Your task to perform on an android device: Show me recent news Image 0: 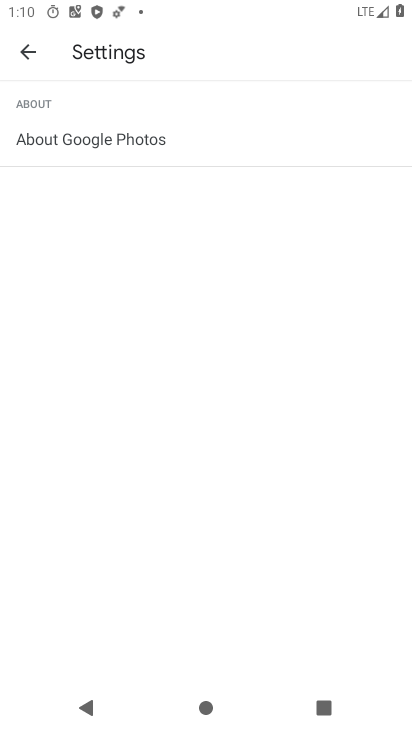
Step 0: press home button
Your task to perform on an android device: Show me recent news Image 1: 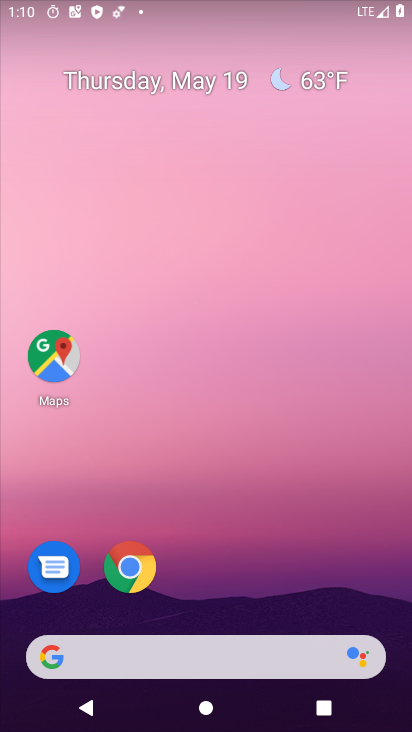
Step 1: click (54, 662)
Your task to perform on an android device: Show me recent news Image 2: 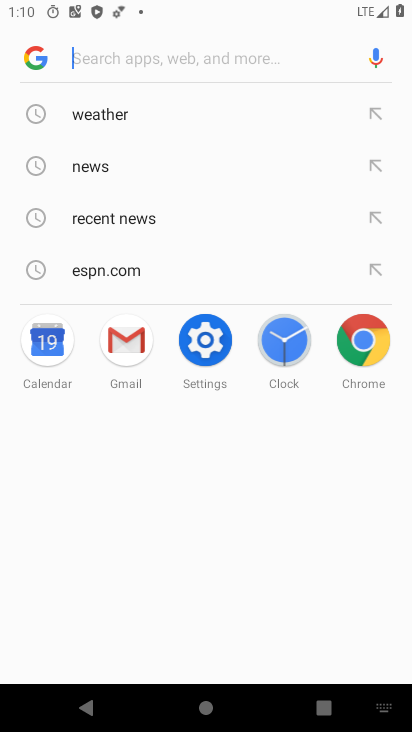
Step 2: click (99, 165)
Your task to perform on an android device: Show me recent news Image 3: 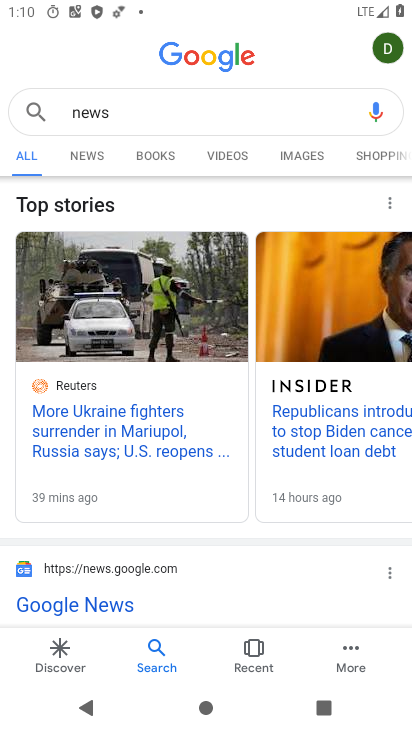
Step 3: click (95, 151)
Your task to perform on an android device: Show me recent news Image 4: 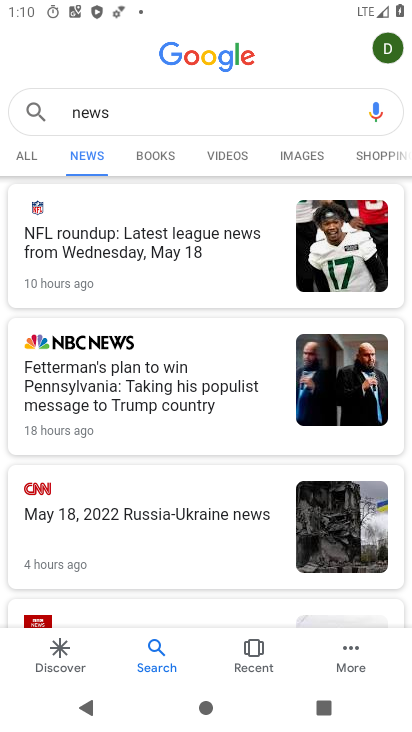
Step 4: task complete